Your task to perform on an android device: install app "Pandora - Music & Podcasts" Image 0: 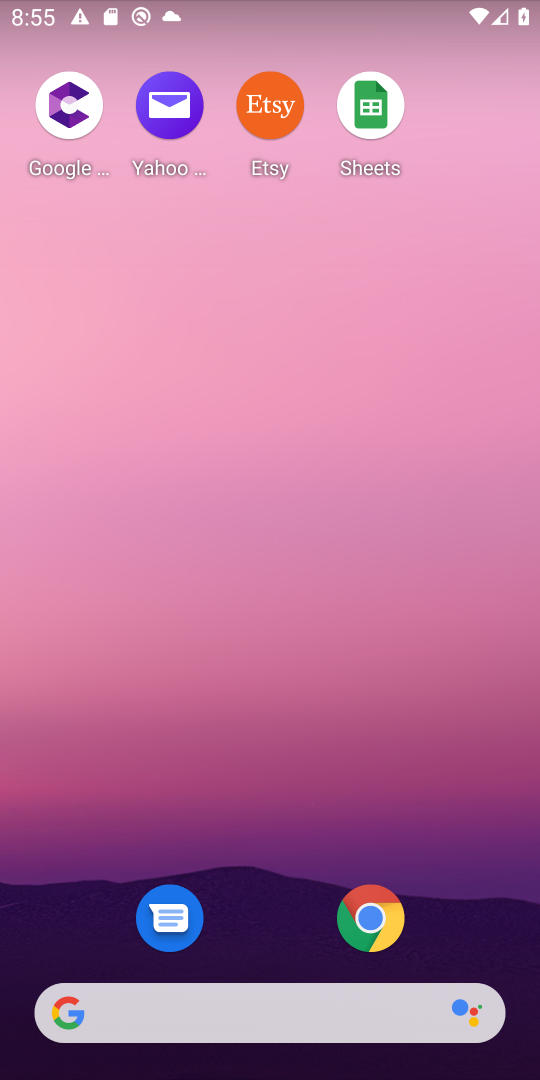
Step 0: drag from (376, 1033) to (491, 31)
Your task to perform on an android device: install app "Pandora - Music & Podcasts" Image 1: 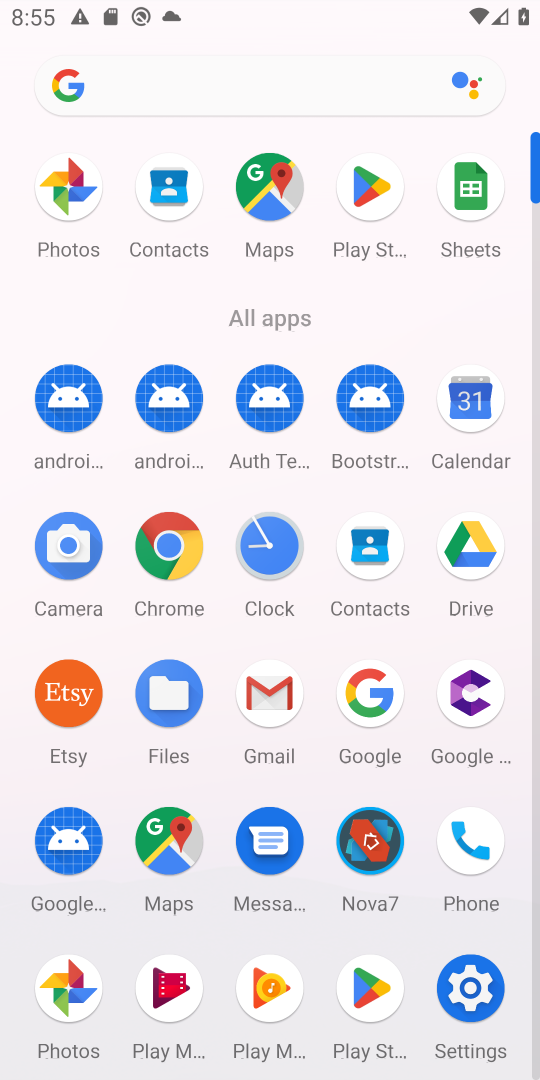
Step 1: click (371, 207)
Your task to perform on an android device: install app "Pandora - Music & Podcasts" Image 2: 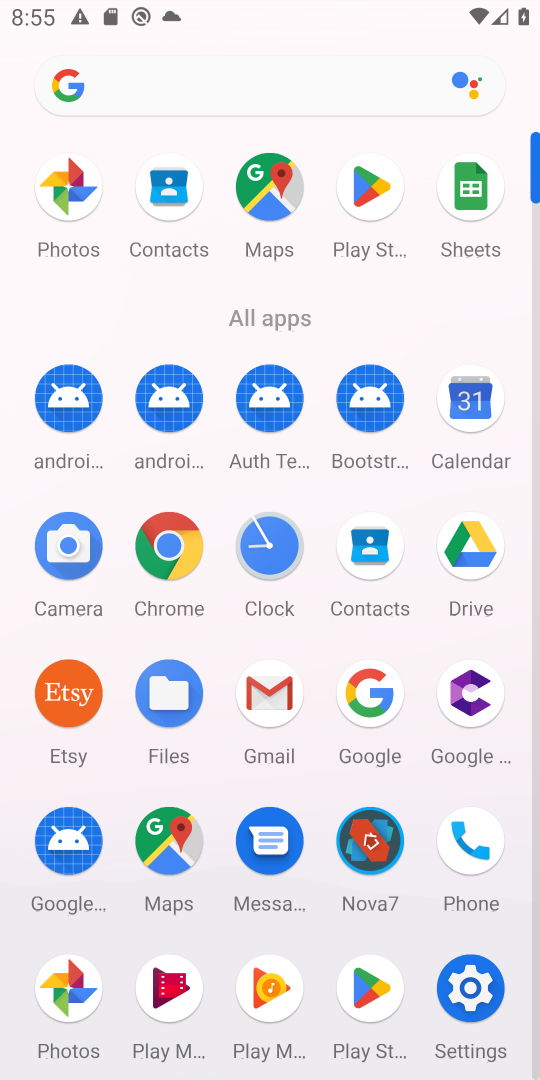
Step 2: click (371, 207)
Your task to perform on an android device: install app "Pandora - Music & Podcasts" Image 3: 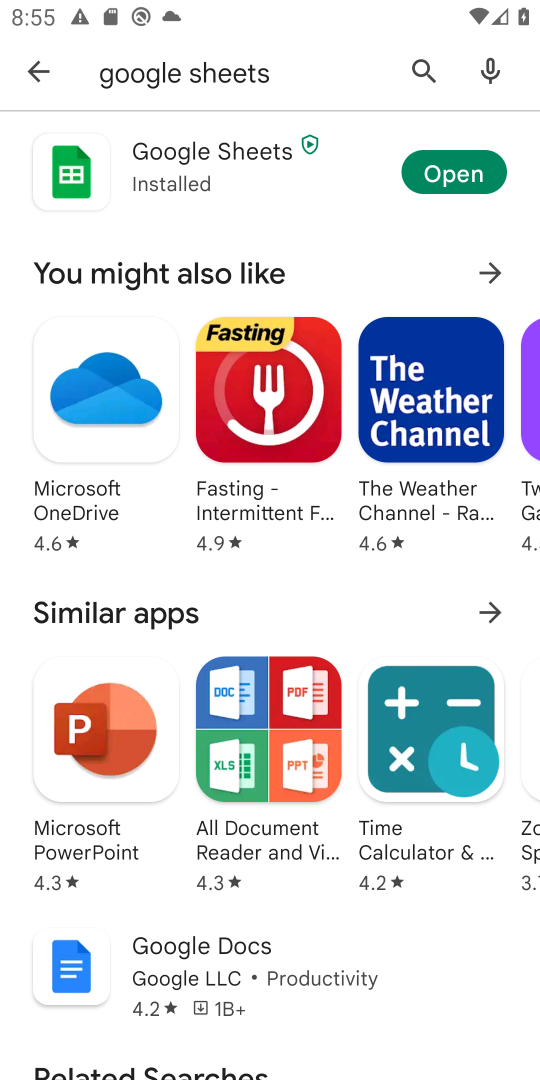
Step 3: click (421, 61)
Your task to perform on an android device: install app "Pandora - Music & Podcasts" Image 4: 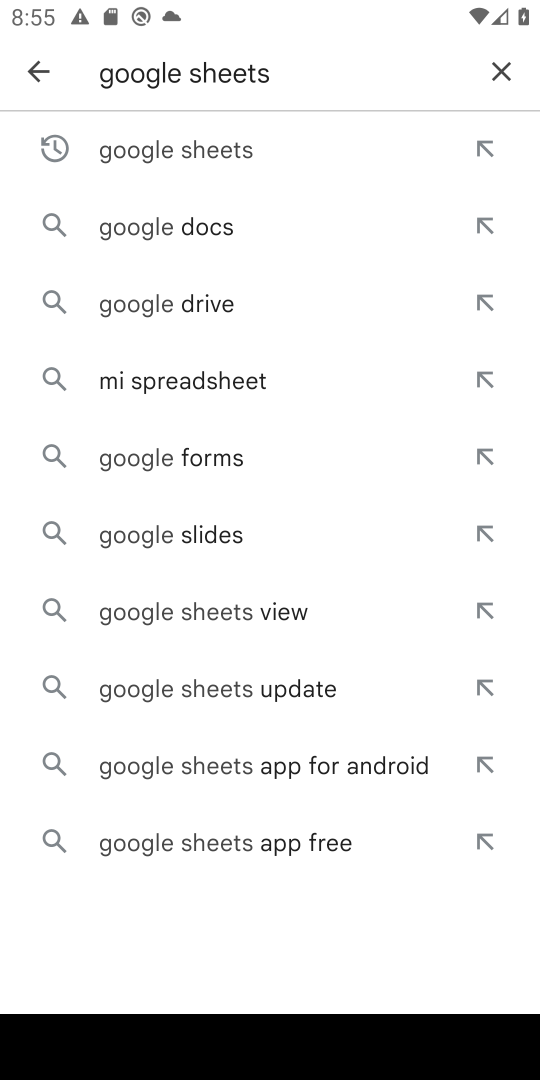
Step 4: click (504, 74)
Your task to perform on an android device: install app "Pandora - Music & Podcasts" Image 5: 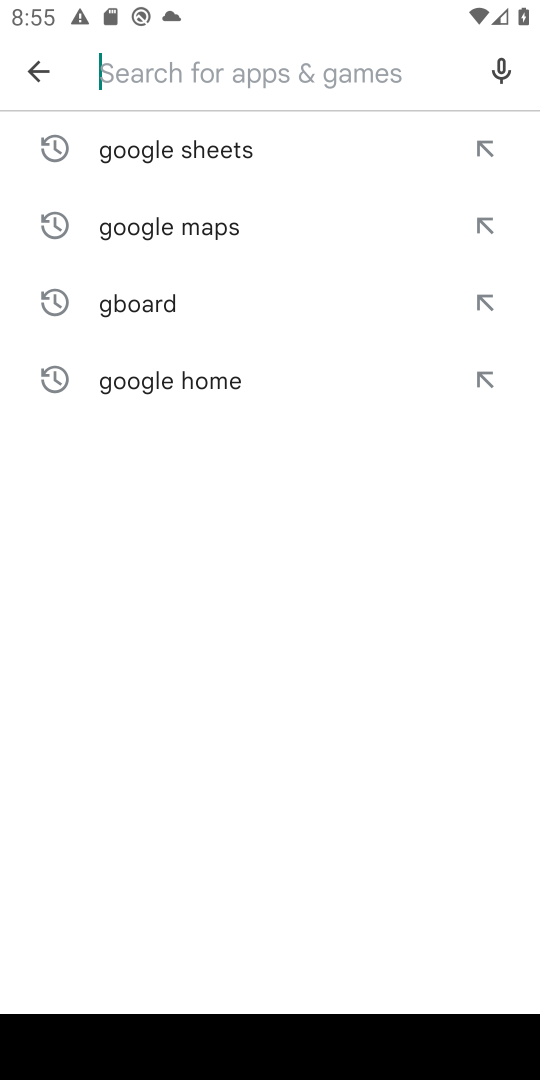
Step 5: type "Pandora - Music & Podcasts"
Your task to perform on an android device: install app "Pandora - Music & Podcasts" Image 6: 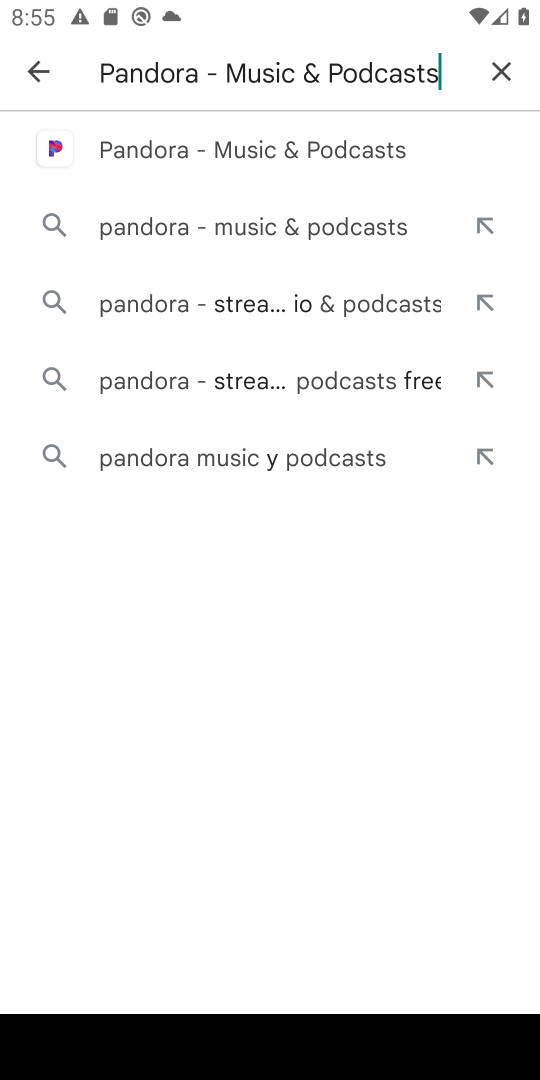
Step 6: click (359, 146)
Your task to perform on an android device: install app "Pandora - Music & Podcasts" Image 7: 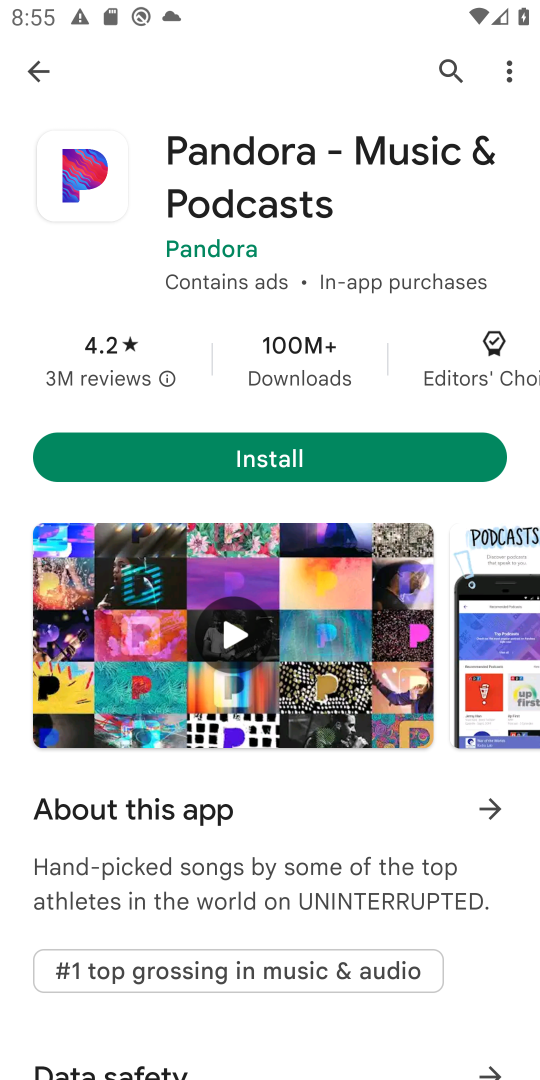
Step 7: click (222, 467)
Your task to perform on an android device: install app "Pandora - Music & Podcasts" Image 8: 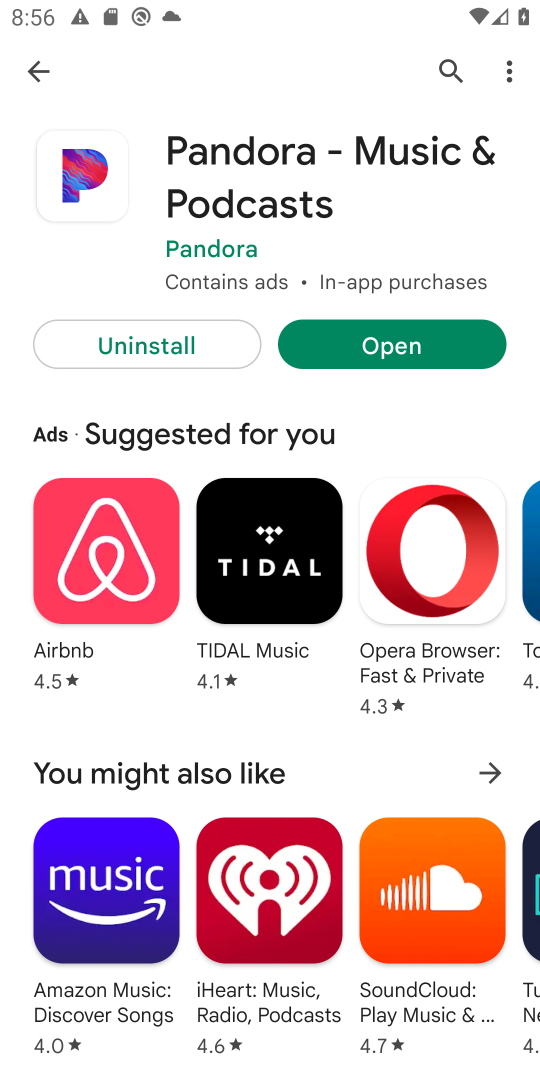
Step 8: task complete